Your task to perform on an android device: Open settings on Google Maps Image 0: 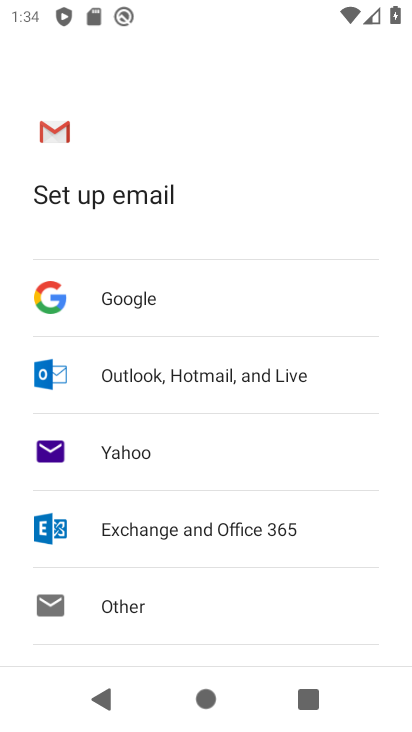
Step 0: drag from (131, 203) to (89, 185)
Your task to perform on an android device: Open settings on Google Maps Image 1: 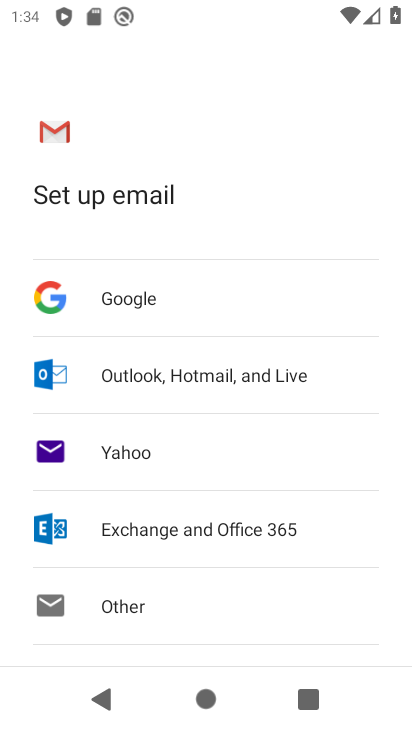
Step 1: press home button
Your task to perform on an android device: Open settings on Google Maps Image 2: 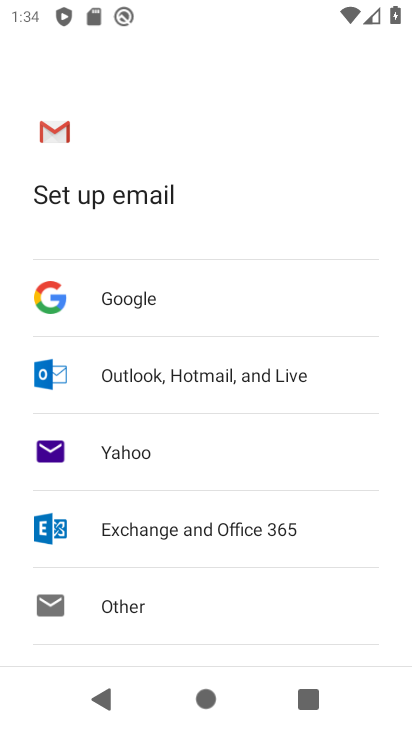
Step 2: press home button
Your task to perform on an android device: Open settings on Google Maps Image 3: 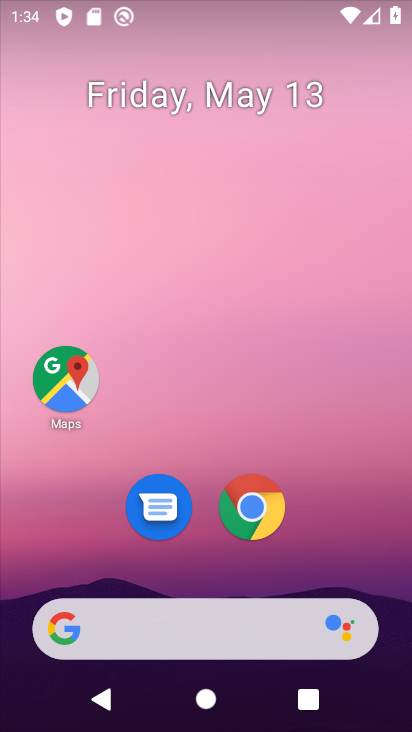
Step 3: click (373, 281)
Your task to perform on an android device: Open settings on Google Maps Image 4: 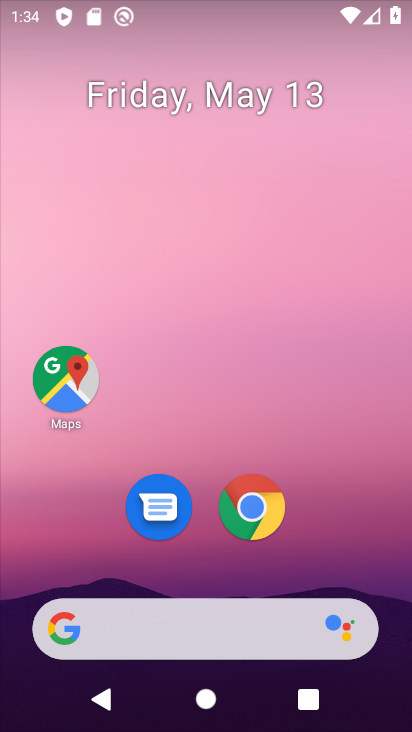
Step 4: click (183, 111)
Your task to perform on an android device: Open settings on Google Maps Image 5: 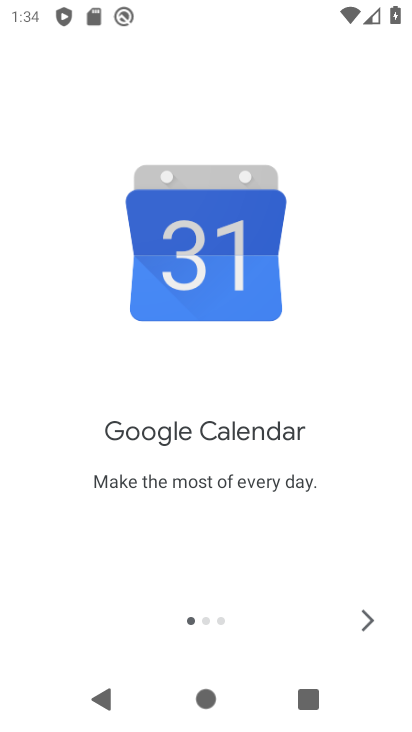
Step 5: click (124, 43)
Your task to perform on an android device: Open settings on Google Maps Image 6: 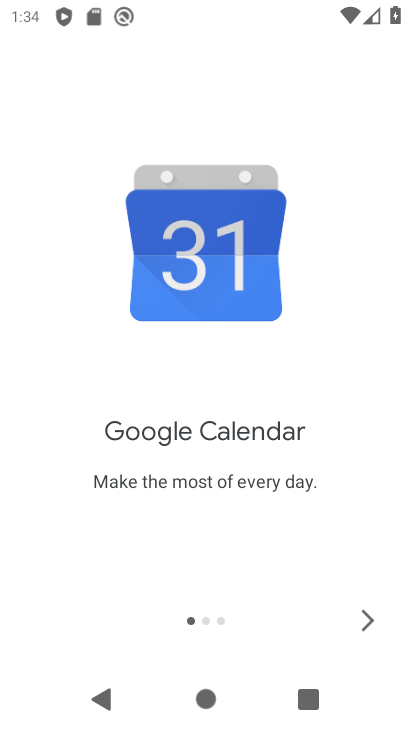
Step 6: drag from (296, 415) to (77, 10)
Your task to perform on an android device: Open settings on Google Maps Image 7: 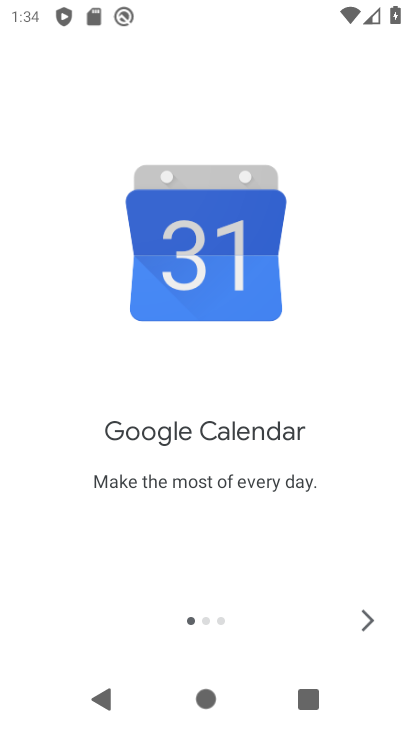
Step 7: drag from (291, 447) to (83, 20)
Your task to perform on an android device: Open settings on Google Maps Image 8: 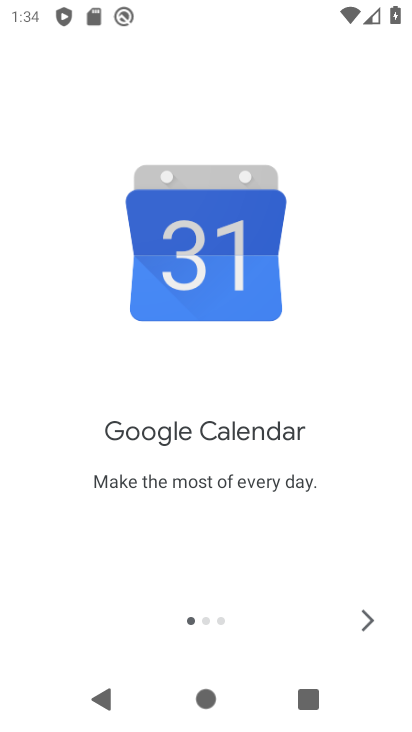
Step 8: drag from (297, 412) to (27, 166)
Your task to perform on an android device: Open settings on Google Maps Image 9: 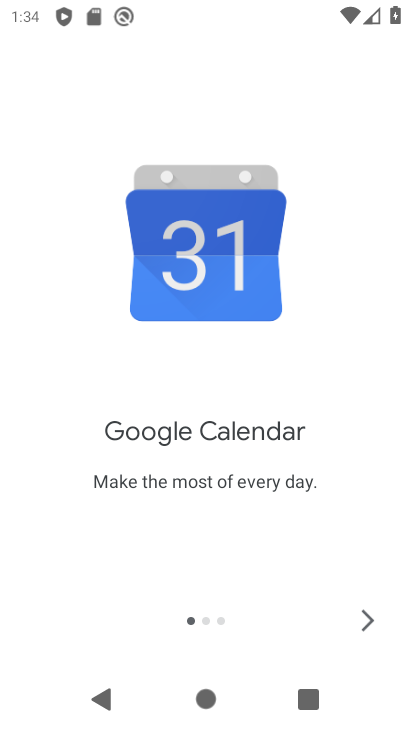
Step 9: click (220, 93)
Your task to perform on an android device: Open settings on Google Maps Image 10: 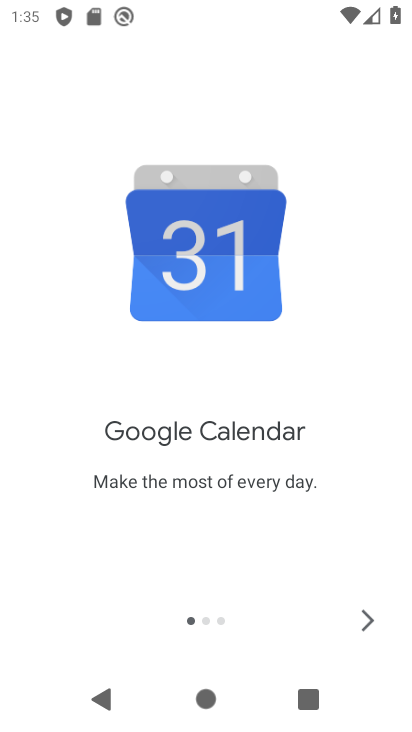
Step 10: drag from (131, 105) to (150, 57)
Your task to perform on an android device: Open settings on Google Maps Image 11: 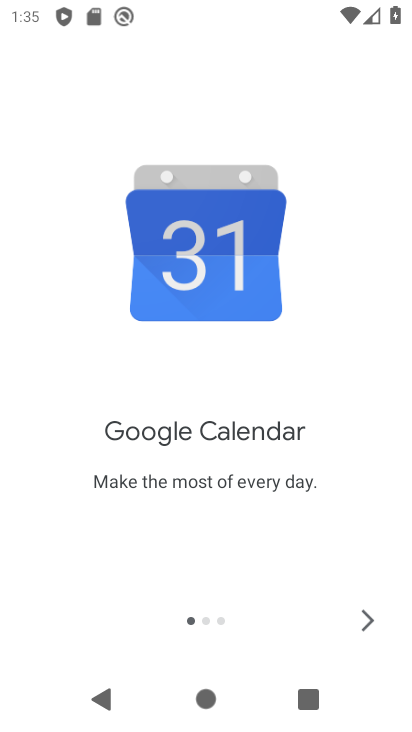
Step 11: click (362, 623)
Your task to perform on an android device: Open settings on Google Maps Image 12: 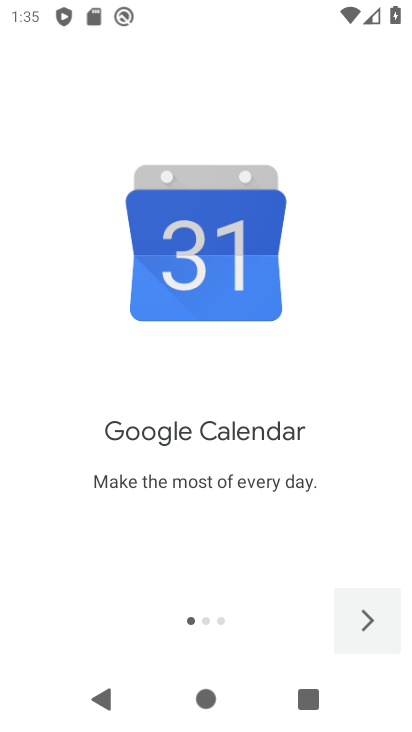
Step 12: click (372, 615)
Your task to perform on an android device: Open settings on Google Maps Image 13: 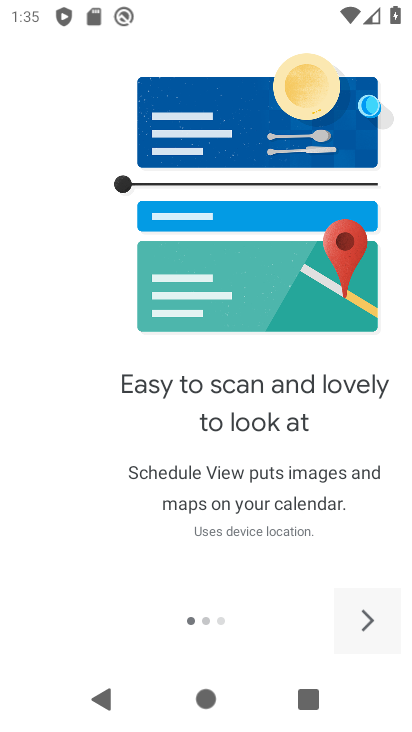
Step 13: task complete